Your task to perform on an android device: uninstall "PUBG MOBILE" Image 0: 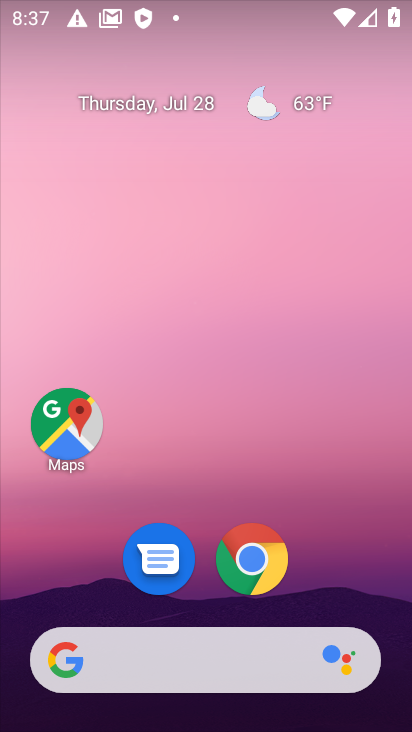
Step 0: drag from (324, 610) to (302, 71)
Your task to perform on an android device: uninstall "PUBG MOBILE" Image 1: 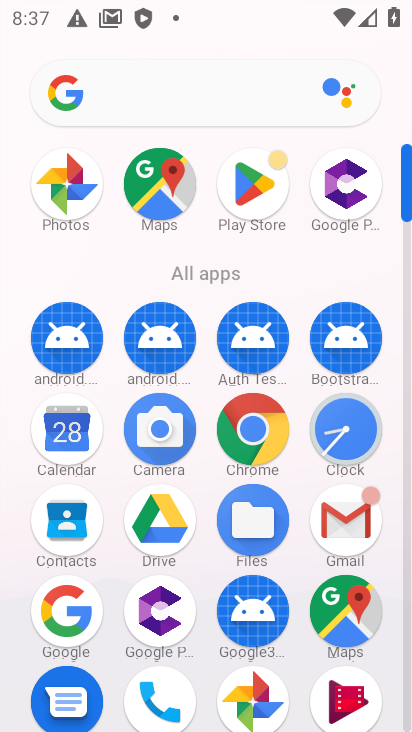
Step 1: click (407, 570)
Your task to perform on an android device: uninstall "PUBG MOBILE" Image 2: 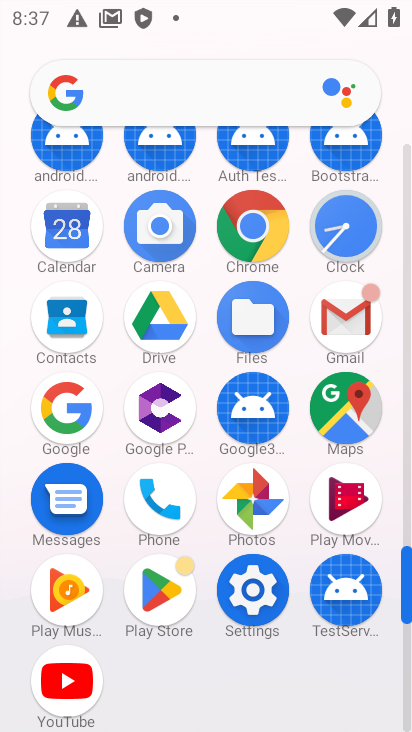
Step 2: task complete